Your task to perform on an android device: Show me popular games on the Play Store Image 0: 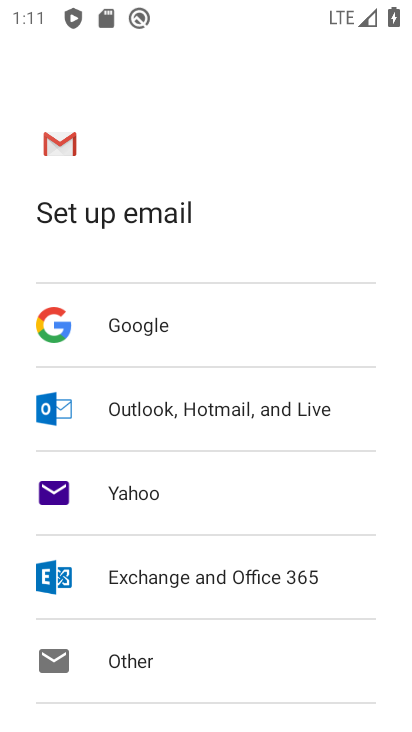
Step 0: press home button
Your task to perform on an android device: Show me popular games on the Play Store Image 1: 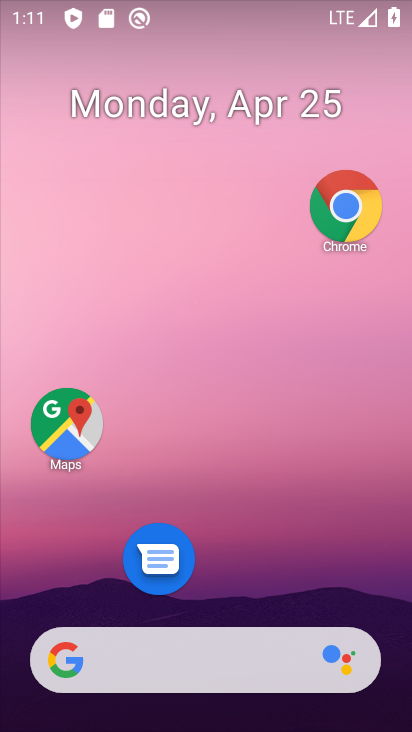
Step 1: drag from (219, 526) to (267, 118)
Your task to perform on an android device: Show me popular games on the Play Store Image 2: 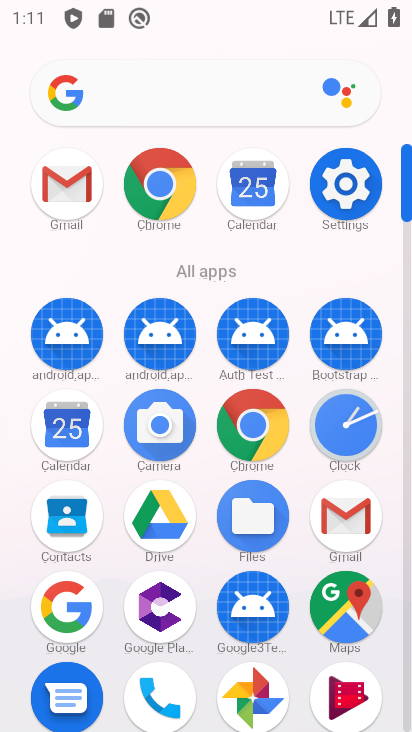
Step 2: drag from (182, 607) to (243, 120)
Your task to perform on an android device: Show me popular games on the Play Store Image 3: 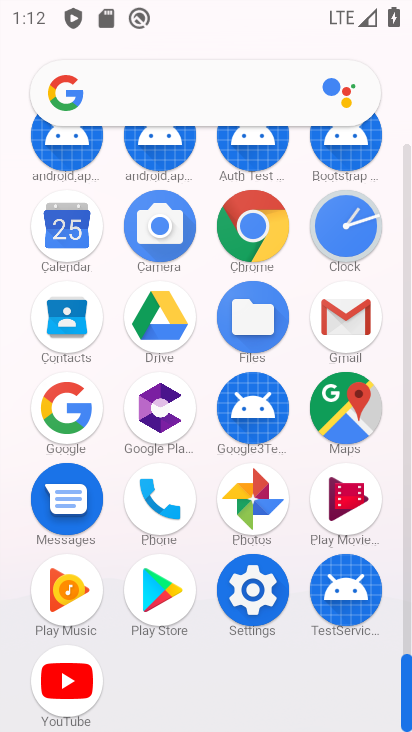
Step 3: click (153, 598)
Your task to perform on an android device: Show me popular games on the Play Store Image 4: 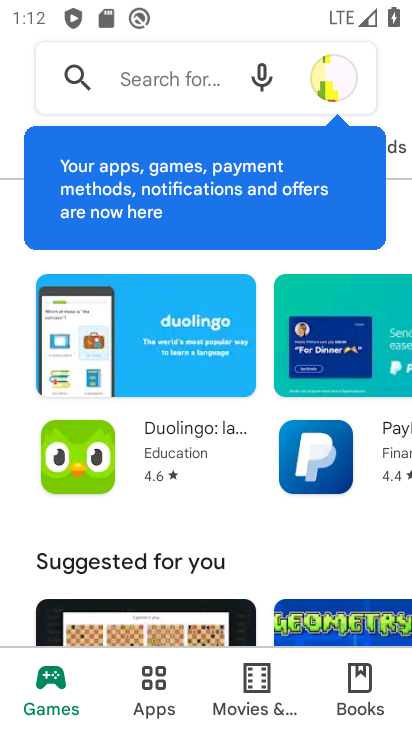
Step 4: click (56, 694)
Your task to perform on an android device: Show me popular games on the Play Store Image 5: 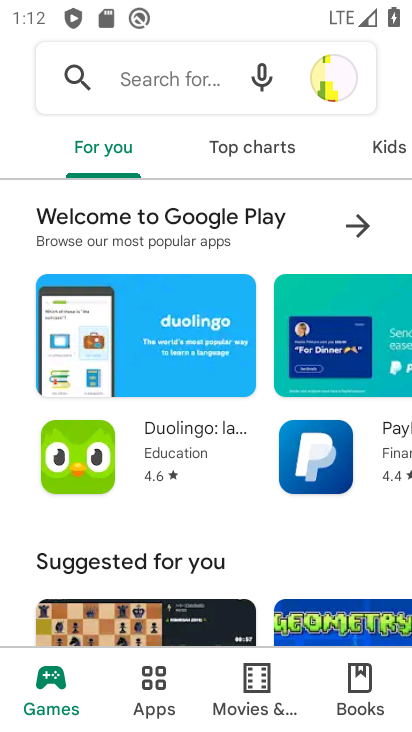
Step 5: drag from (183, 563) to (271, 89)
Your task to perform on an android device: Show me popular games on the Play Store Image 6: 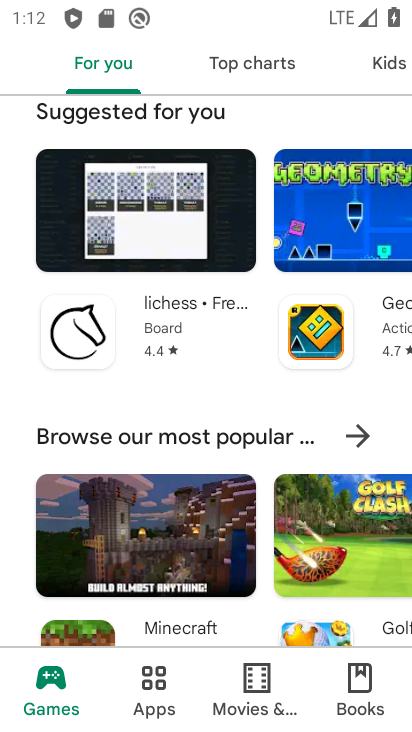
Step 6: drag from (196, 552) to (225, 215)
Your task to perform on an android device: Show me popular games on the Play Store Image 7: 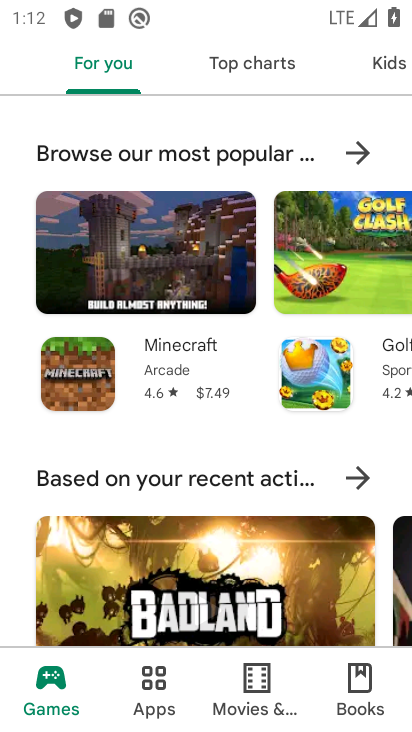
Step 7: click (362, 150)
Your task to perform on an android device: Show me popular games on the Play Store Image 8: 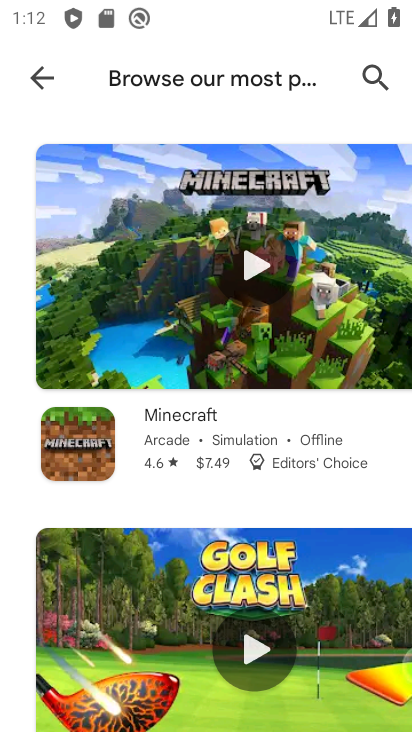
Step 8: task complete